Your task to perform on an android device: Open network settings Image 0: 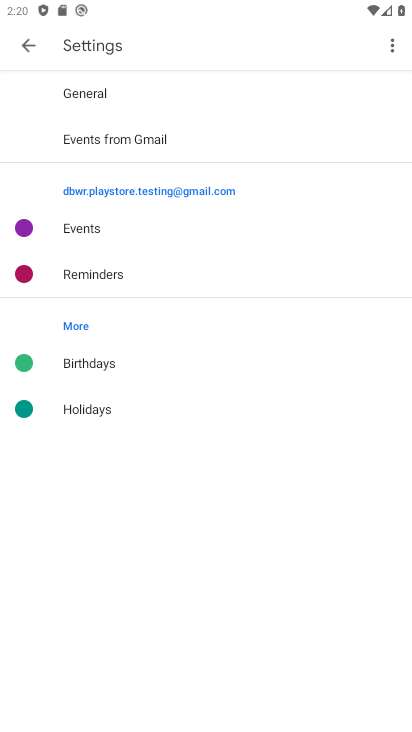
Step 0: press home button
Your task to perform on an android device: Open network settings Image 1: 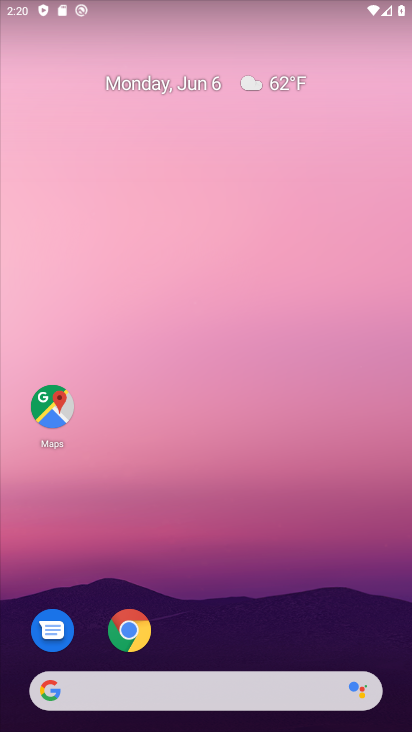
Step 1: drag from (239, 604) to (246, 32)
Your task to perform on an android device: Open network settings Image 2: 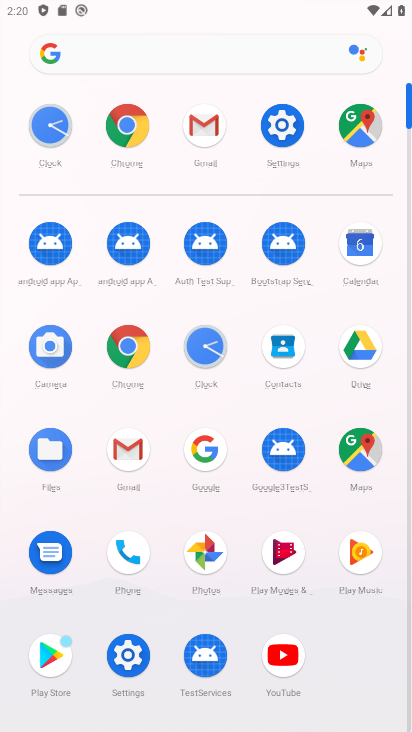
Step 2: click (119, 646)
Your task to perform on an android device: Open network settings Image 3: 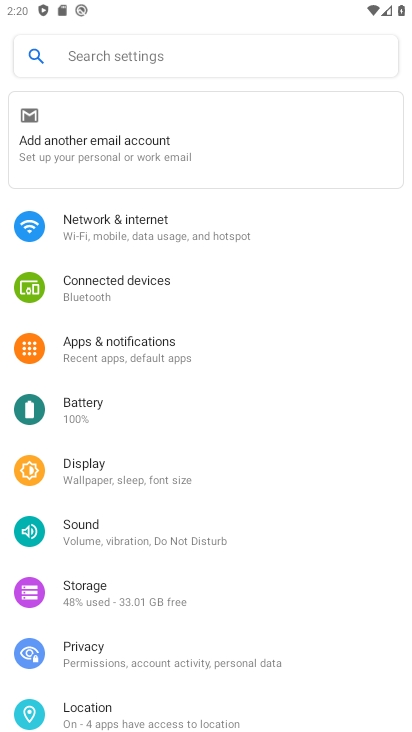
Step 3: click (141, 227)
Your task to perform on an android device: Open network settings Image 4: 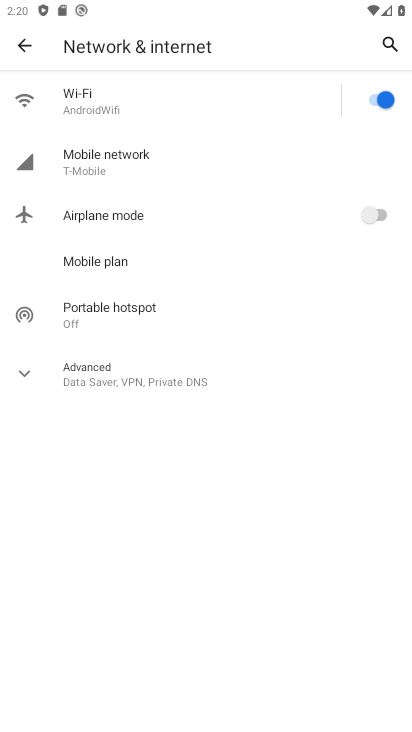
Step 4: task complete